Your task to perform on an android device: Open the map Image 0: 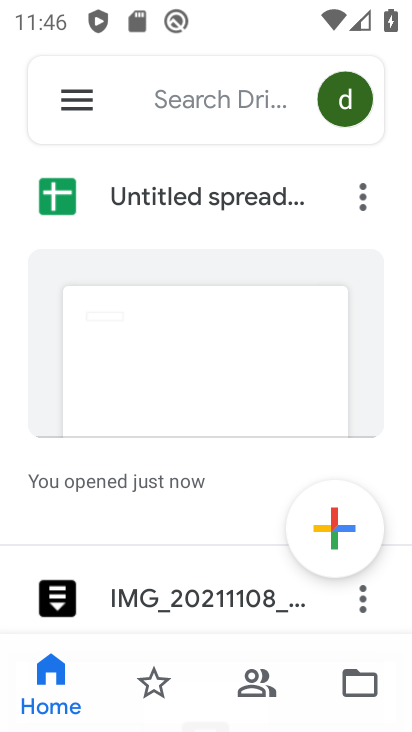
Step 0: press back button
Your task to perform on an android device: Open the map Image 1: 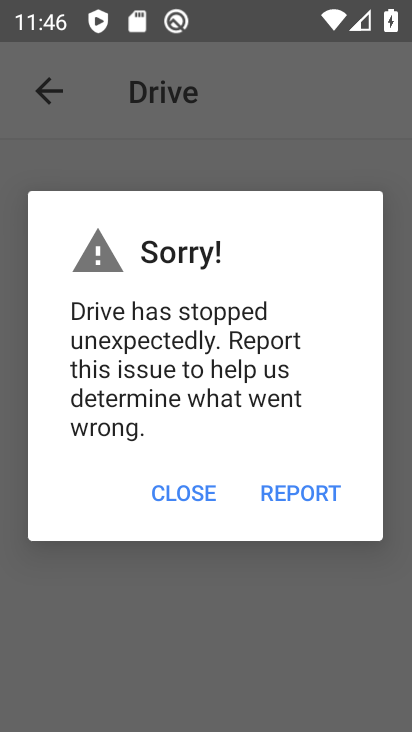
Step 1: press home button
Your task to perform on an android device: Open the map Image 2: 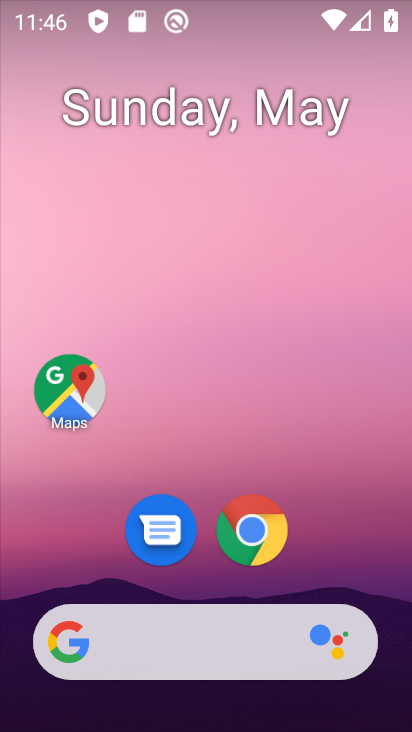
Step 2: click (69, 382)
Your task to perform on an android device: Open the map Image 3: 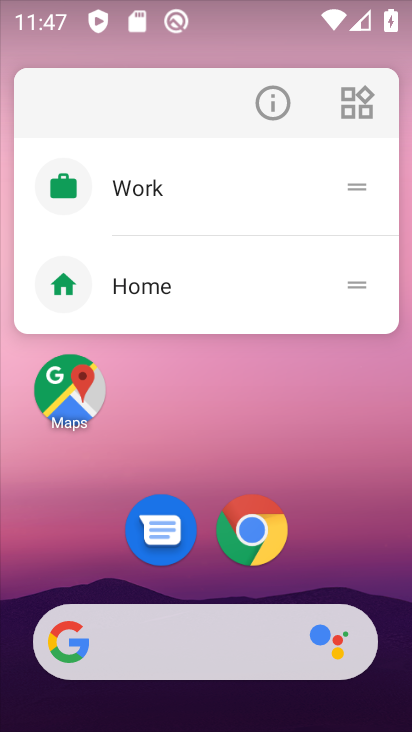
Step 3: click (60, 385)
Your task to perform on an android device: Open the map Image 4: 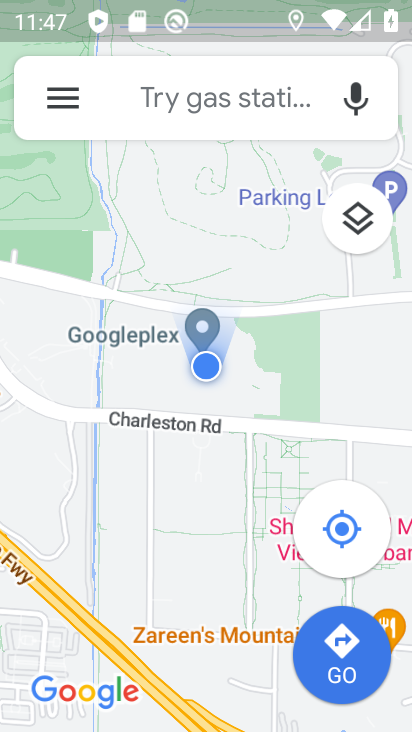
Step 4: task complete